Your task to perform on an android device: Open battery settings Image 0: 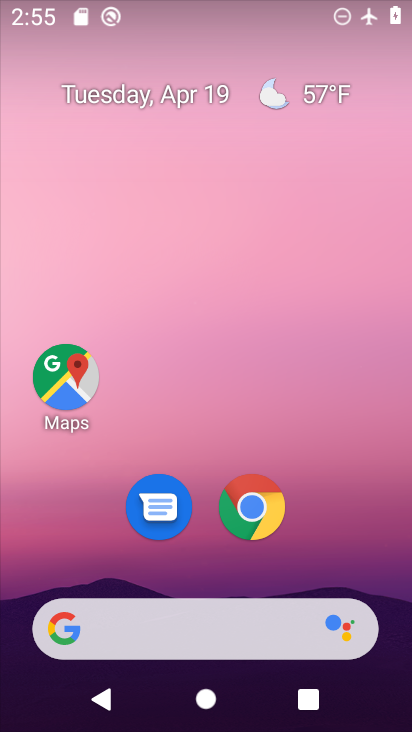
Step 0: drag from (303, 567) to (262, 162)
Your task to perform on an android device: Open battery settings Image 1: 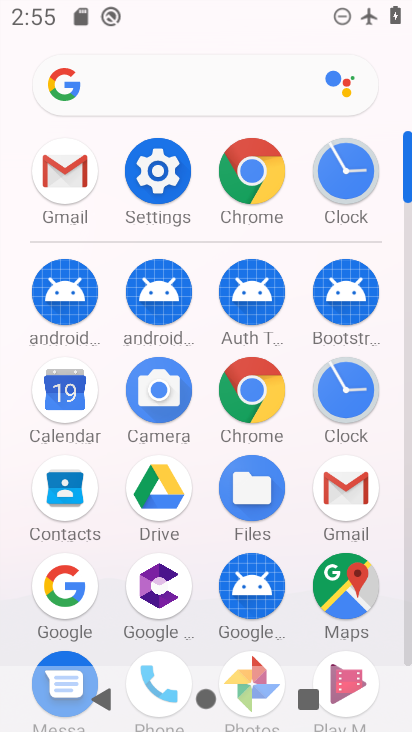
Step 1: click (181, 186)
Your task to perform on an android device: Open battery settings Image 2: 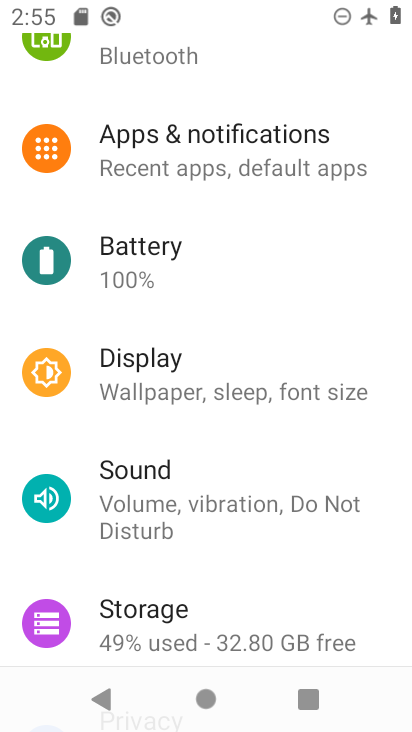
Step 2: click (196, 237)
Your task to perform on an android device: Open battery settings Image 3: 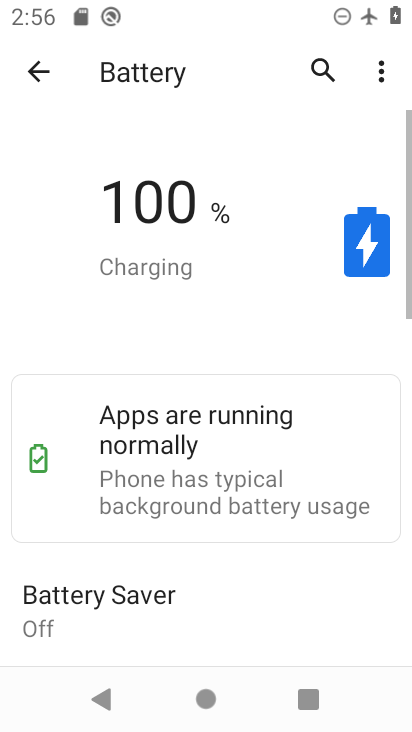
Step 3: task complete